Your task to perform on an android device: What's the weather? Image 0: 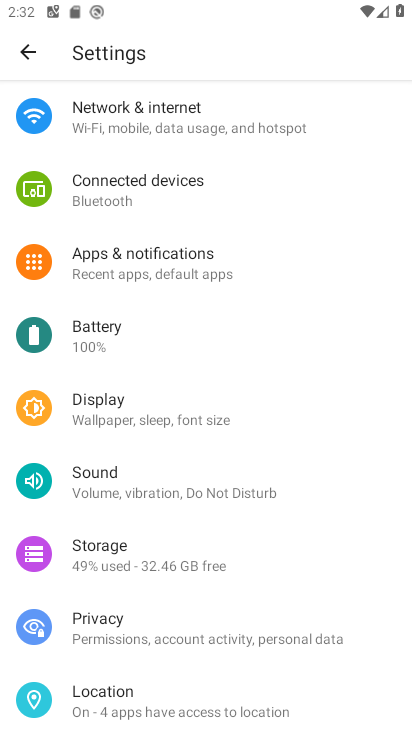
Step 0: press home button
Your task to perform on an android device: What's the weather? Image 1: 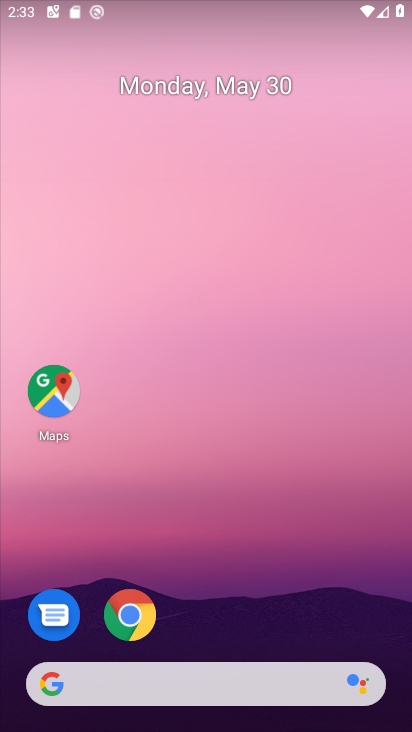
Step 1: click (179, 683)
Your task to perform on an android device: What's the weather? Image 2: 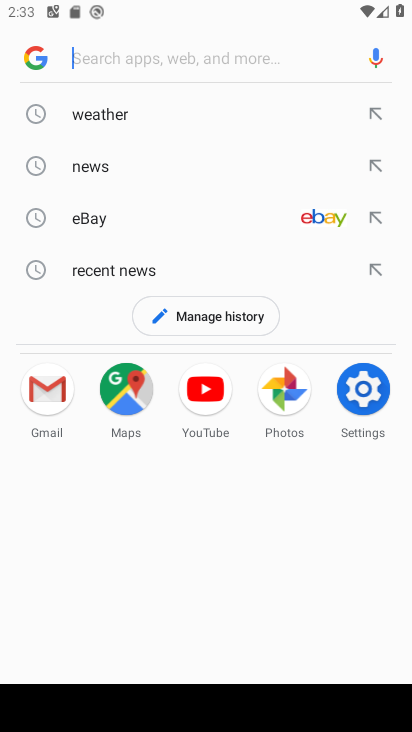
Step 2: click (110, 116)
Your task to perform on an android device: What's the weather? Image 3: 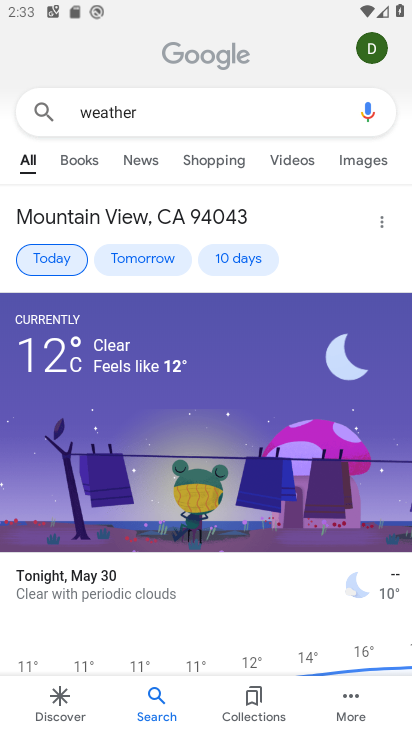
Step 3: click (63, 257)
Your task to perform on an android device: What's the weather? Image 4: 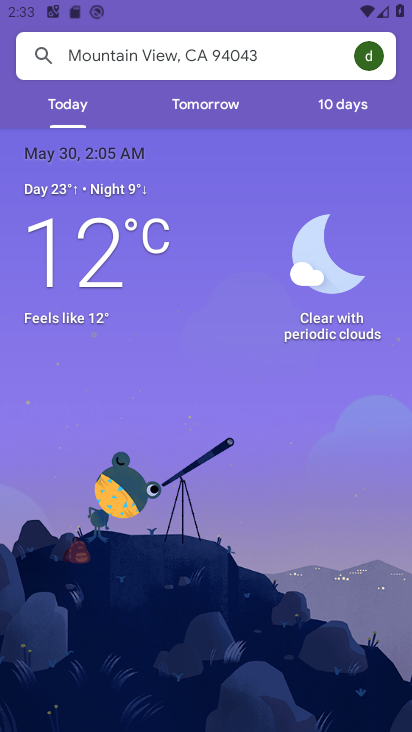
Step 4: task complete